Your task to perform on an android device: add a label to a message in the gmail app Image 0: 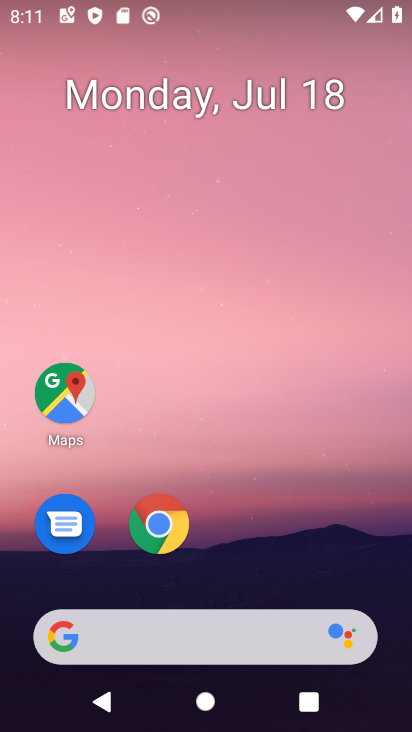
Step 0: drag from (269, 549) to (275, 56)
Your task to perform on an android device: add a label to a message in the gmail app Image 1: 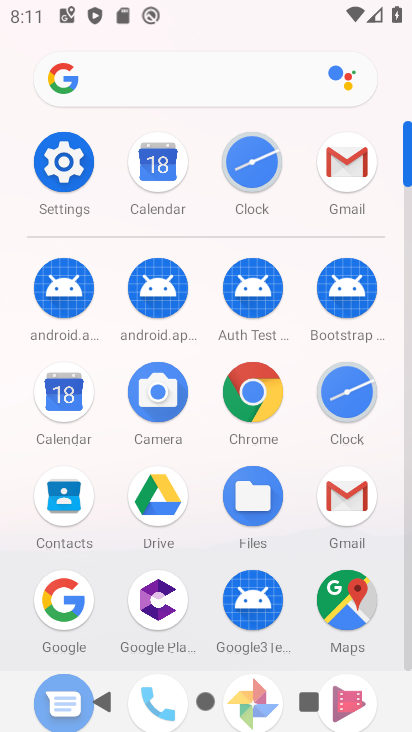
Step 1: click (336, 173)
Your task to perform on an android device: add a label to a message in the gmail app Image 2: 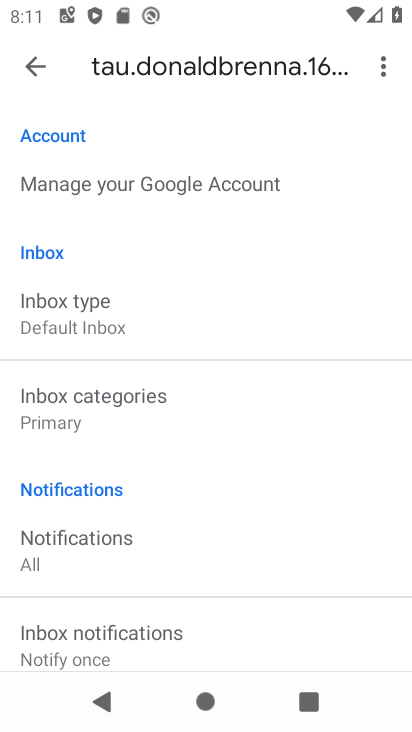
Step 2: click (39, 62)
Your task to perform on an android device: add a label to a message in the gmail app Image 3: 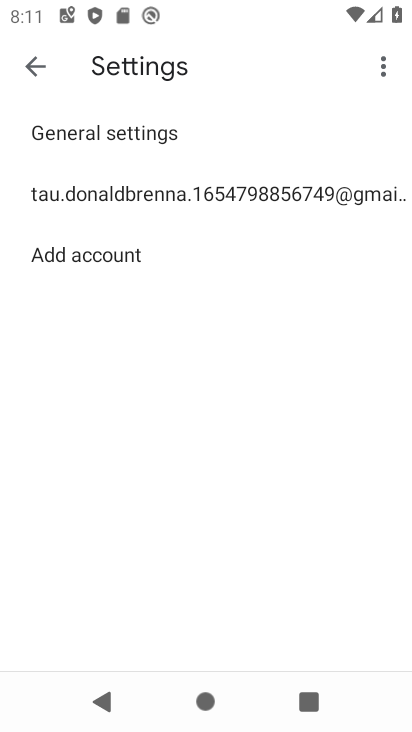
Step 3: click (39, 64)
Your task to perform on an android device: add a label to a message in the gmail app Image 4: 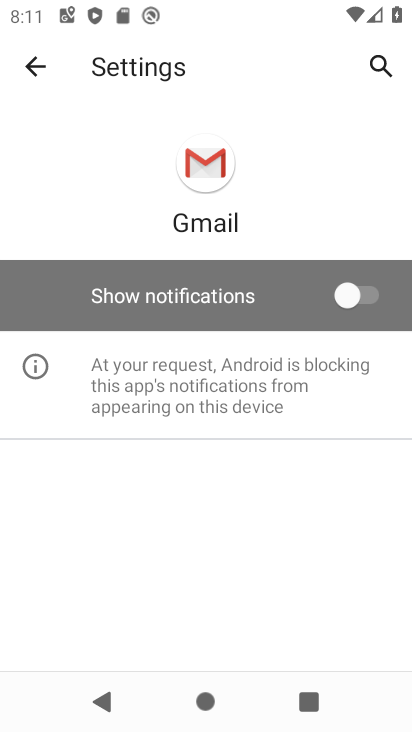
Step 4: click (35, 66)
Your task to perform on an android device: add a label to a message in the gmail app Image 5: 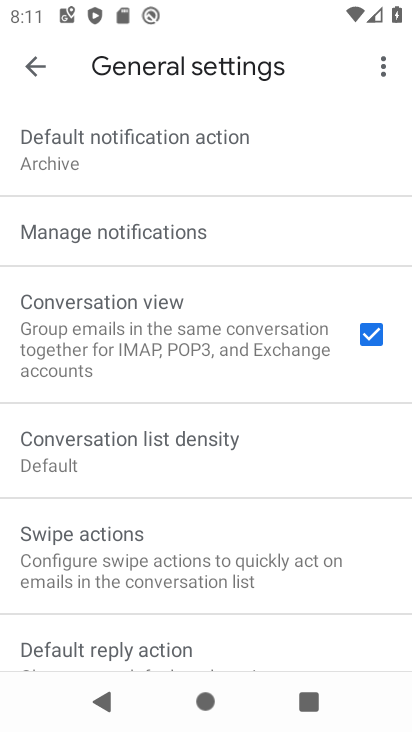
Step 5: click (35, 66)
Your task to perform on an android device: add a label to a message in the gmail app Image 6: 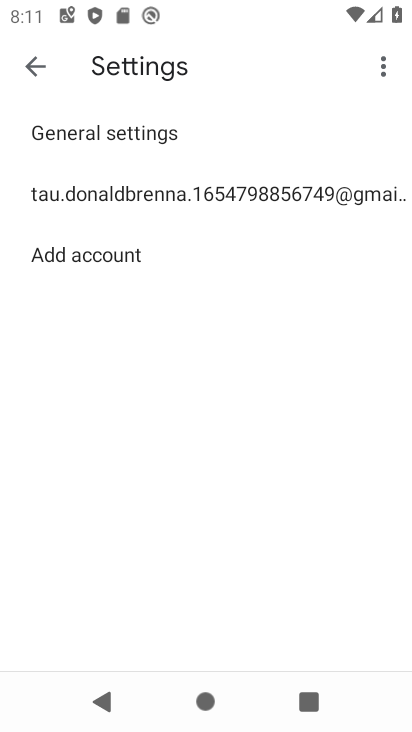
Step 6: click (39, 66)
Your task to perform on an android device: add a label to a message in the gmail app Image 7: 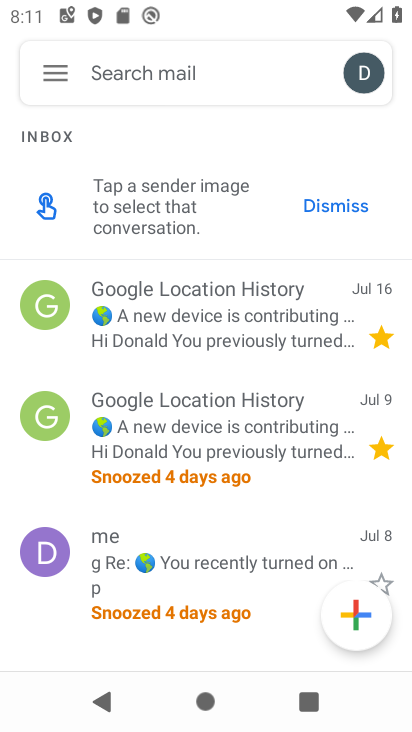
Step 7: click (229, 320)
Your task to perform on an android device: add a label to a message in the gmail app Image 8: 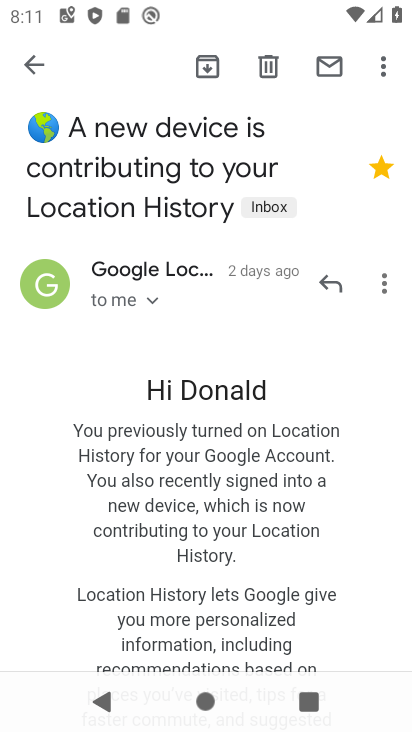
Step 8: click (385, 74)
Your task to perform on an android device: add a label to a message in the gmail app Image 9: 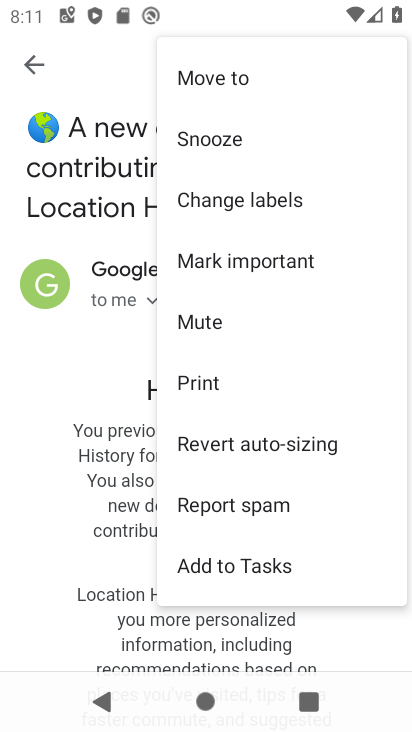
Step 9: click (281, 187)
Your task to perform on an android device: add a label to a message in the gmail app Image 10: 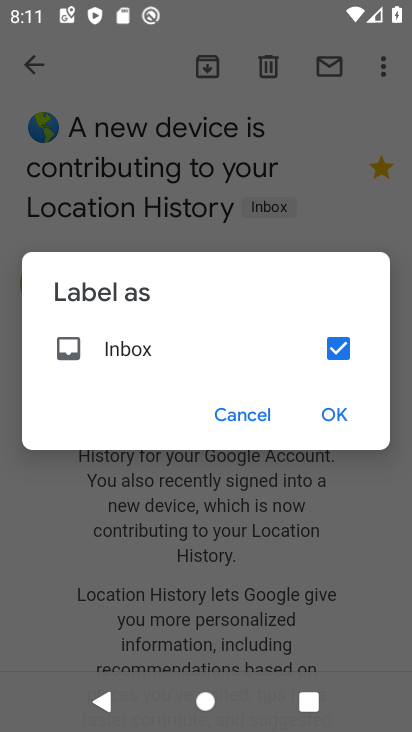
Step 10: click (335, 348)
Your task to perform on an android device: add a label to a message in the gmail app Image 11: 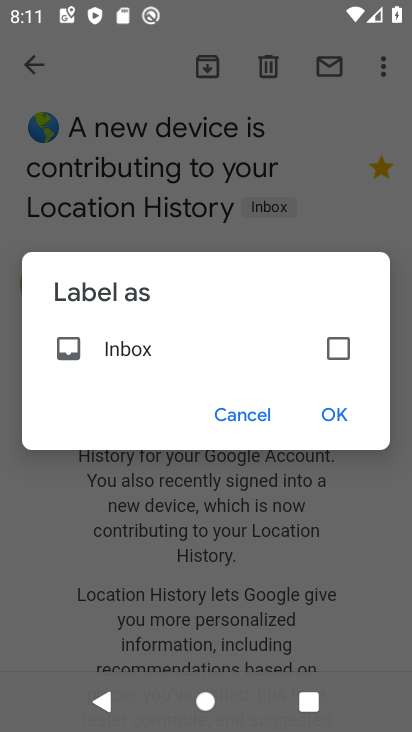
Step 11: click (334, 403)
Your task to perform on an android device: add a label to a message in the gmail app Image 12: 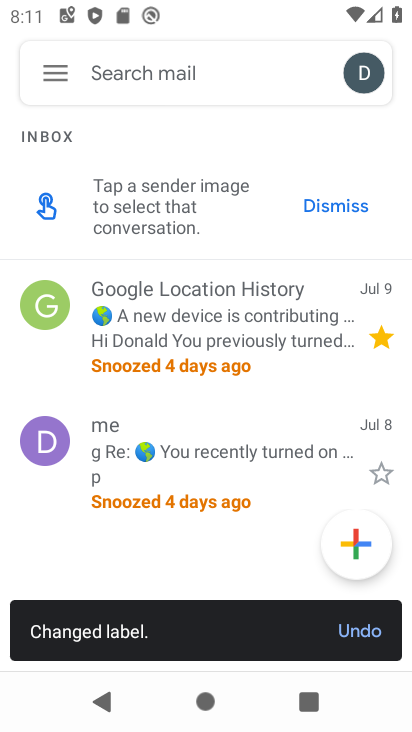
Step 12: task complete